Your task to perform on an android device: check storage Image 0: 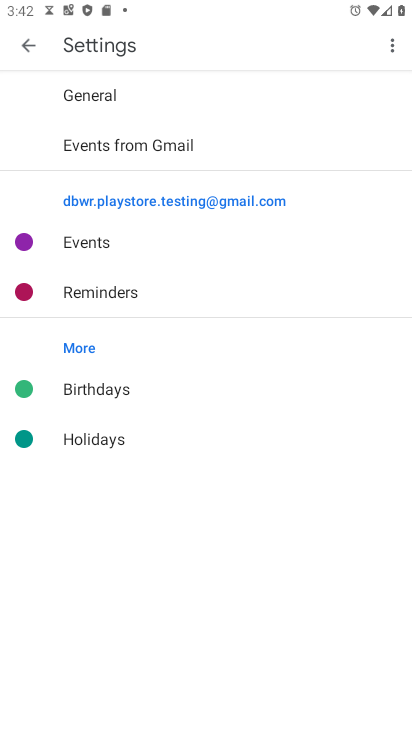
Step 0: press home button
Your task to perform on an android device: check storage Image 1: 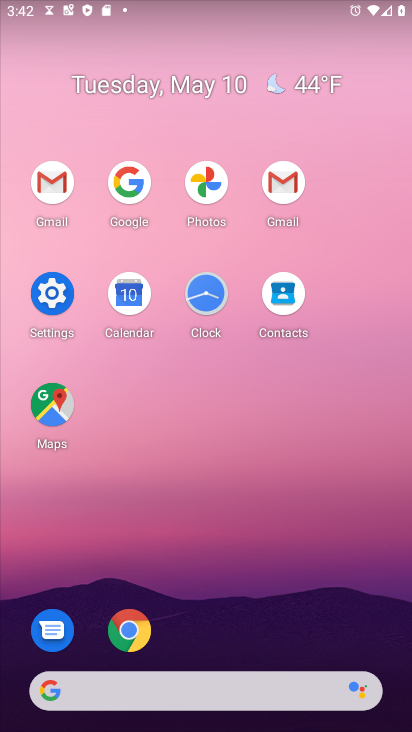
Step 1: click (47, 291)
Your task to perform on an android device: check storage Image 2: 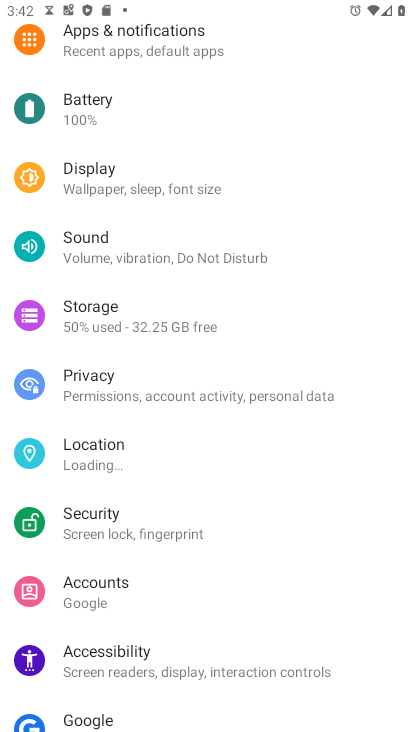
Step 2: click (156, 321)
Your task to perform on an android device: check storage Image 3: 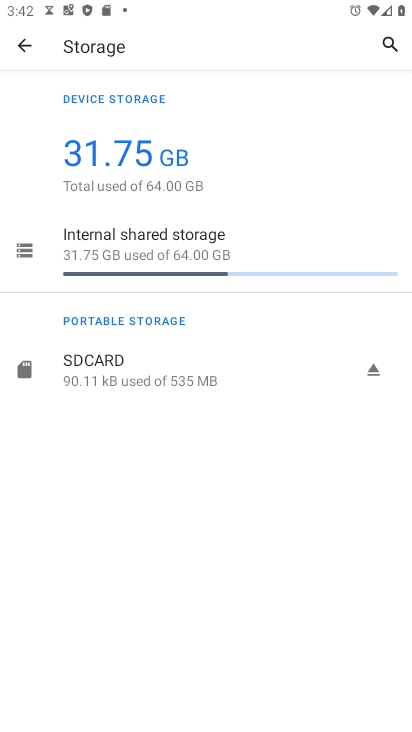
Step 3: task complete